Your task to perform on an android device: change the clock style Image 0: 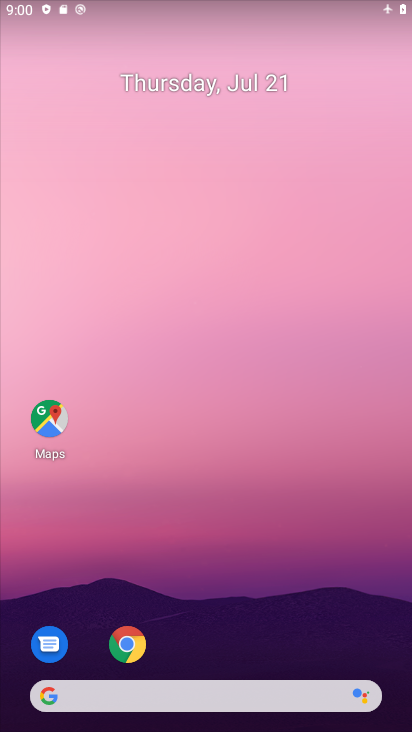
Step 0: click (261, 152)
Your task to perform on an android device: change the clock style Image 1: 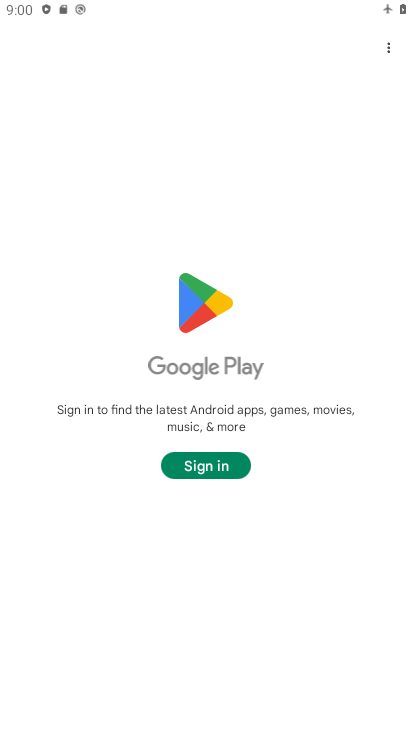
Step 1: press back button
Your task to perform on an android device: change the clock style Image 2: 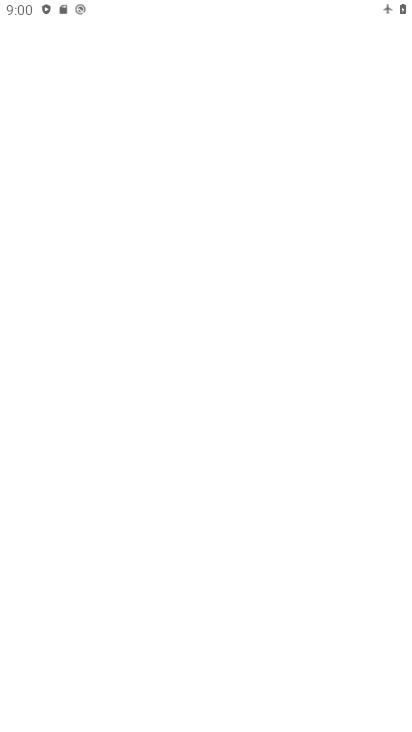
Step 2: press back button
Your task to perform on an android device: change the clock style Image 3: 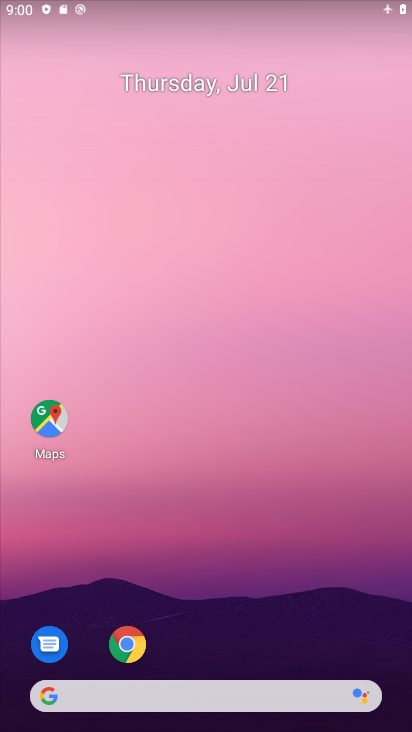
Step 3: drag from (262, 660) to (201, 130)
Your task to perform on an android device: change the clock style Image 4: 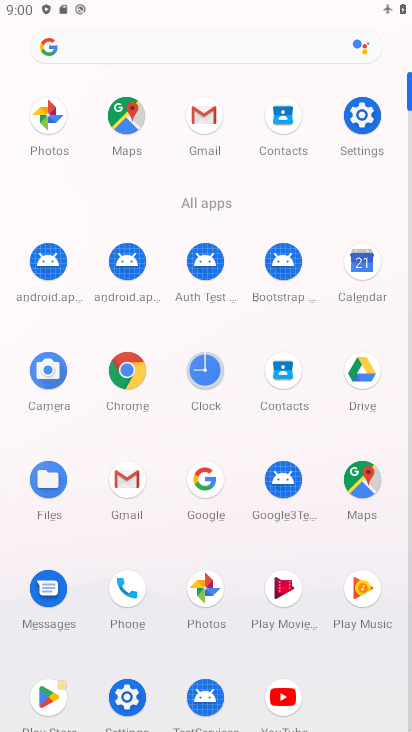
Step 4: click (200, 364)
Your task to perform on an android device: change the clock style Image 5: 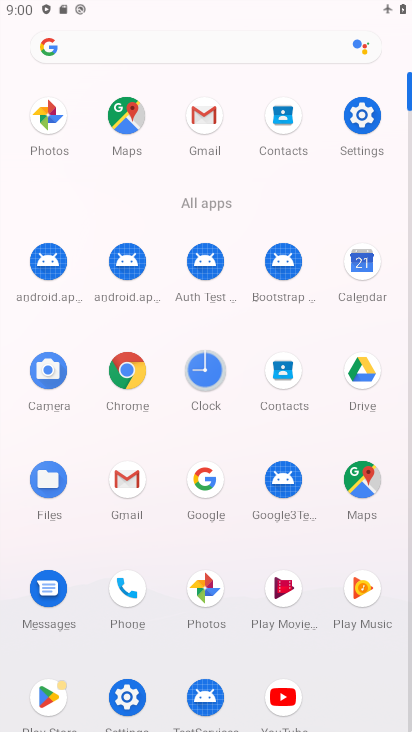
Step 5: click (200, 364)
Your task to perform on an android device: change the clock style Image 6: 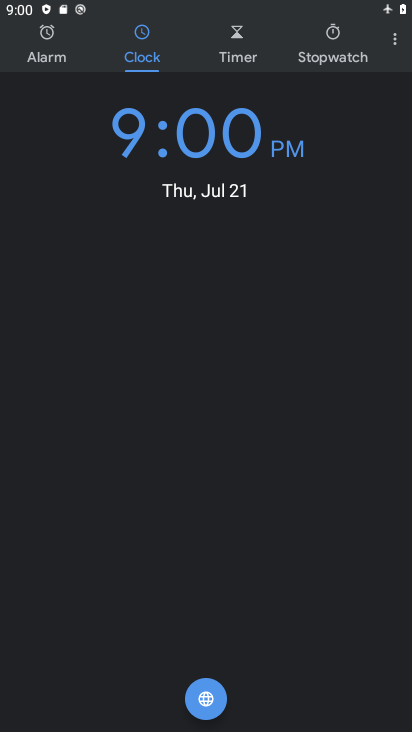
Step 6: drag from (394, 49) to (299, 72)
Your task to perform on an android device: change the clock style Image 7: 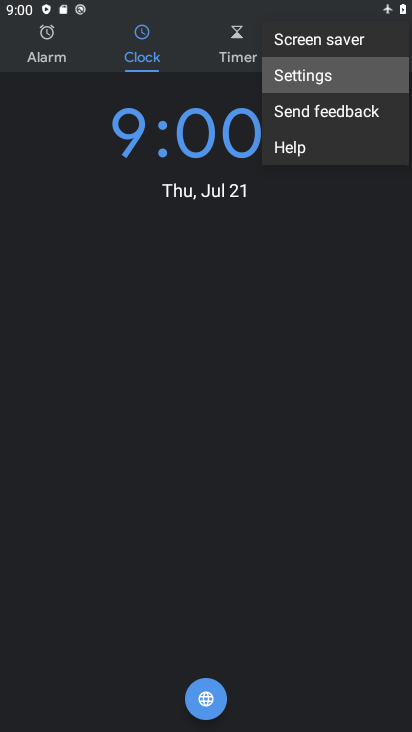
Step 7: click (302, 75)
Your task to perform on an android device: change the clock style Image 8: 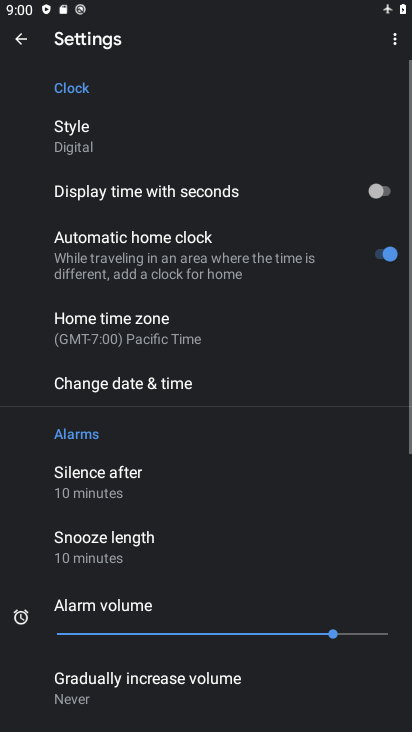
Step 8: click (87, 130)
Your task to perform on an android device: change the clock style Image 9: 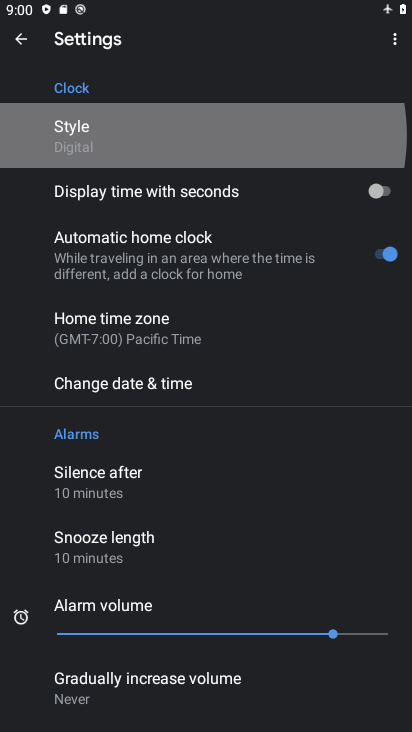
Step 9: click (87, 131)
Your task to perform on an android device: change the clock style Image 10: 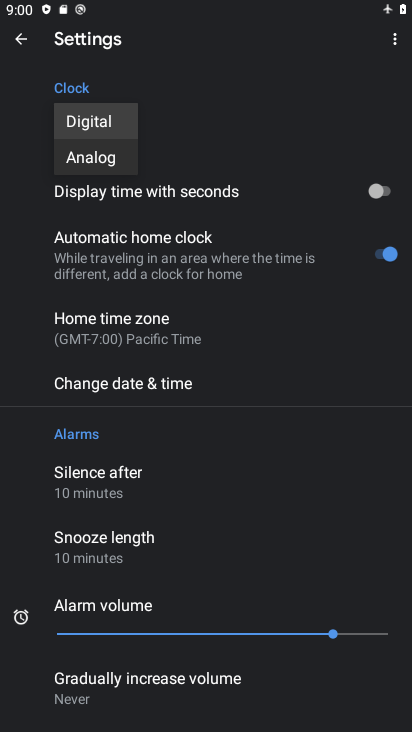
Step 10: click (104, 157)
Your task to perform on an android device: change the clock style Image 11: 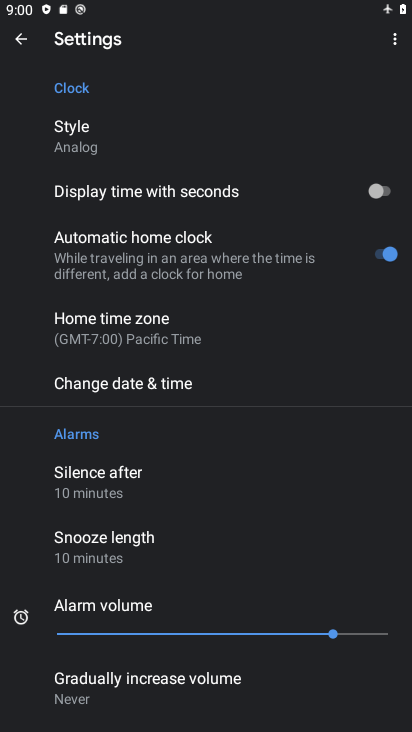
Step 11: task complete